Your task to perform on an android device: Show me productivity apps on the Play Store Image 0: 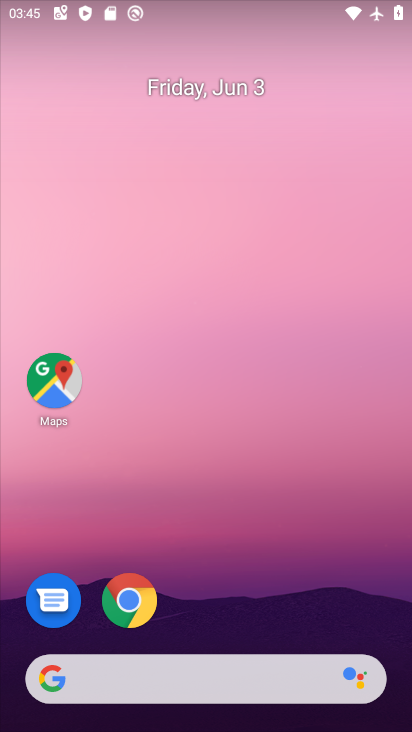
Step 0: drag from (232, 607) to (287, 247)
Your task to perform on an android device: Show me productivity apps on the Play Store Image 1: 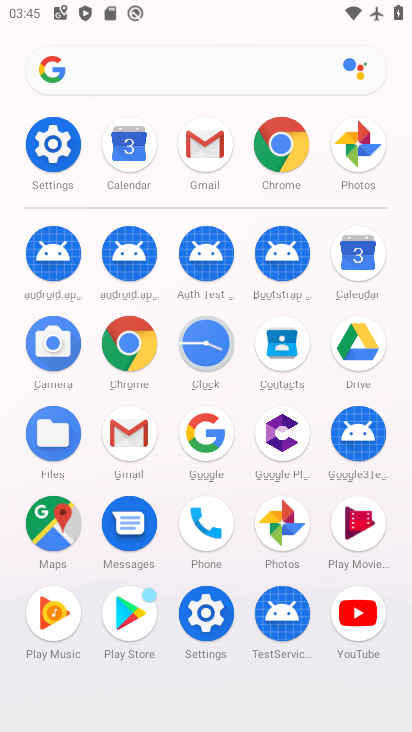
Step 1: click (129, 625)
Your task to perform on an android device: Show me productivity apps on the Play Store Image 2: 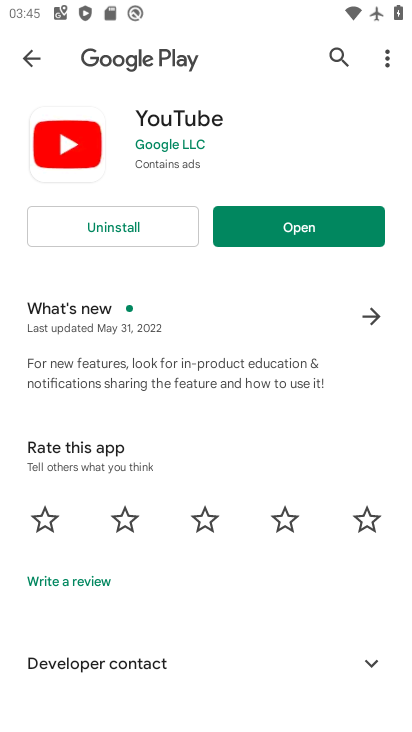
Step 2: click (34, 49)
Your task to perform on an android device: Show me productivity apps on the Play Store Image 3: 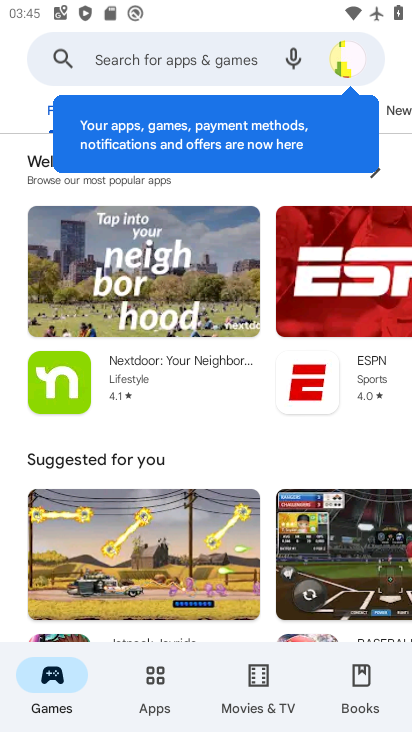
Step 3: click (159, 679)
Your task to perform on an android device: Show me productivity apps on the Play Store Image 4: 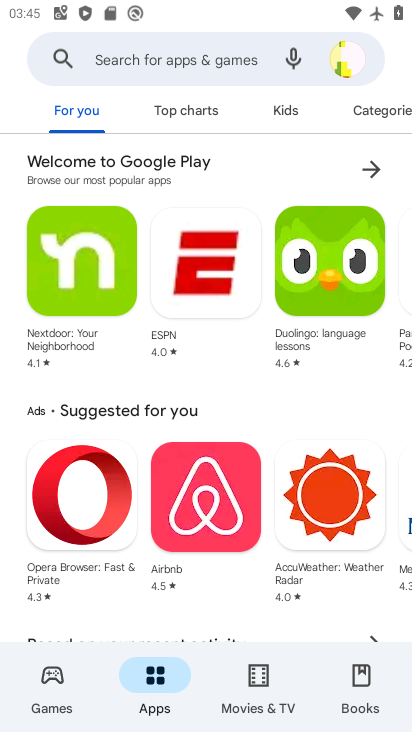
Step 4: click (375, 111)
Your task to perform on an android device: Show me productivity apps on the Play Store Image 5: 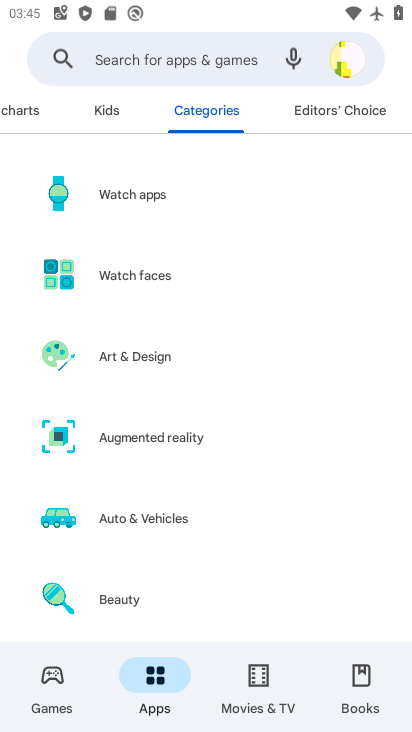
Step 5: drag from (146, 501) to (180, 320)
Your task to perform on an android device: Show me productivity apps on the Play Store Image 6: 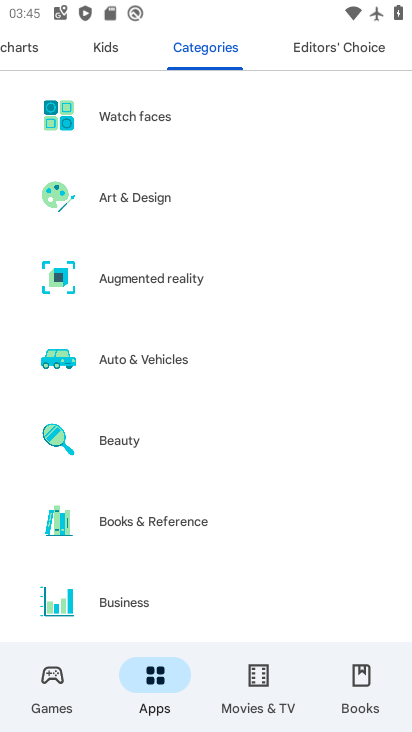
Step 6: drag from (122, 567) to (171, 323)
Your task to perform on an android device: Show me productivity apps on the Play Store Image 7: 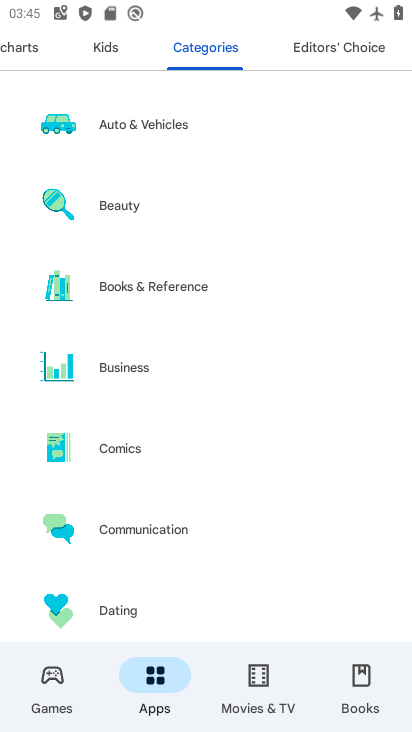
Step 7: drag from (143, 590) to (229, 4)
Your task to perform on an android device: Show me productivity apps on the Play Store Image 8: 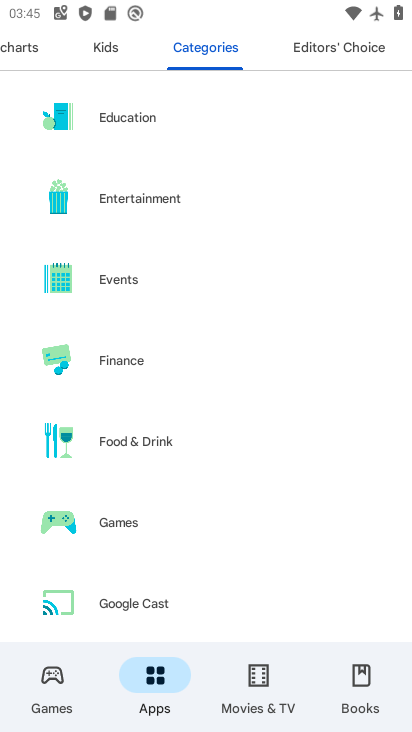
Step 8: drag from (181, 469) to (300, 17)
Your task to perform on an android device: Show me productivity apps on the Play Store Image 9: 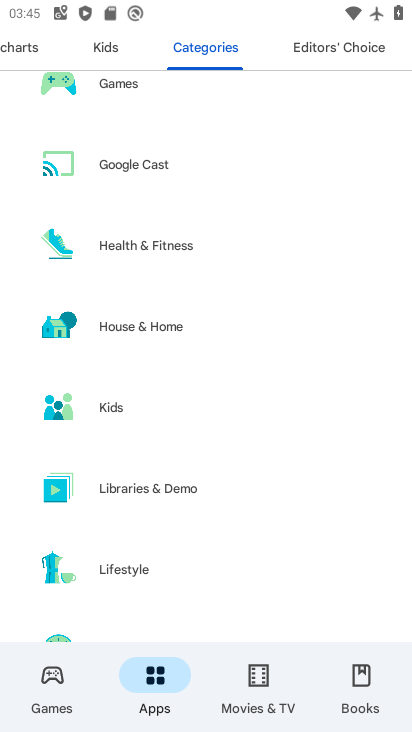
Step 9: drag from (146, 596) to (225, 207)
Your task to perform on an android device: Show me productivity apps on the Play Store Image 10: 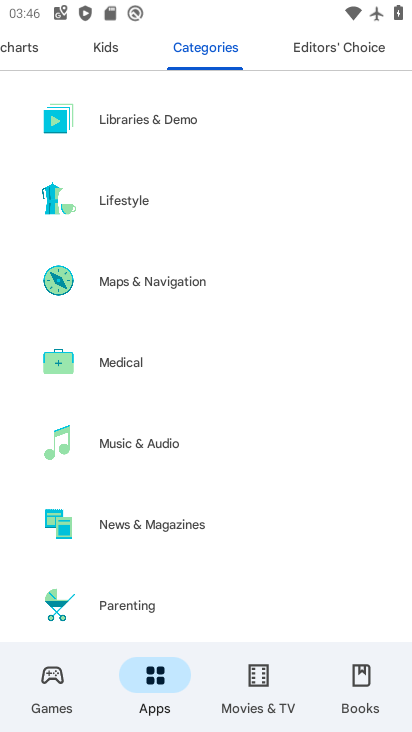
Step 10: drag from (217, 608) to (292, 146)
Your task to perform on an android device: Show me productivity apps on the Play Store Image 11: 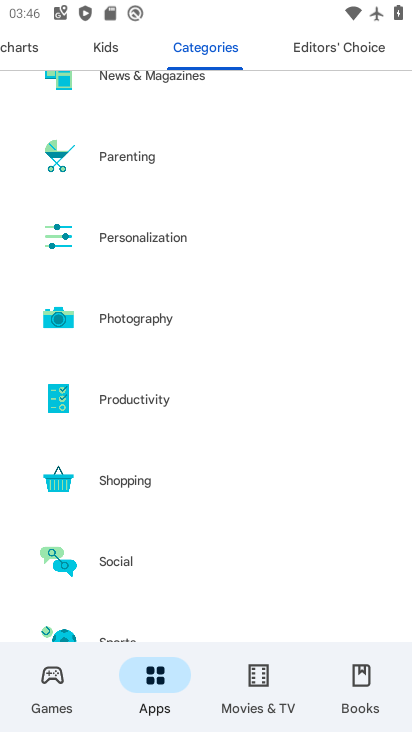
Step 11: click (75, 399)
Your task to perform on an android device: Show me productivity apps on the Play Store Image 12: 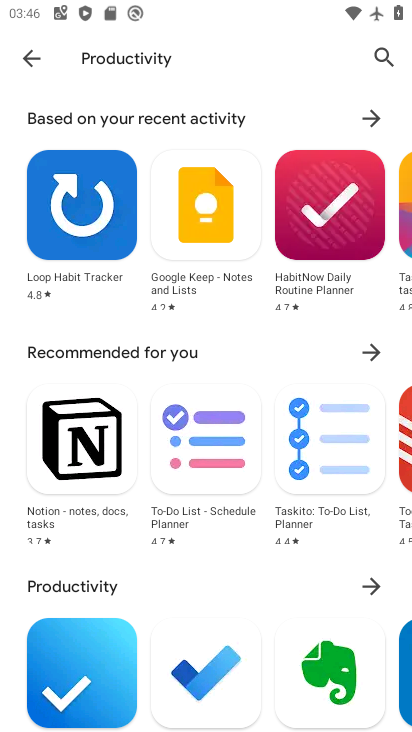
Step 12: task complete